Your task to perform on an android device: turn pop-ups off in chrome Image 0: 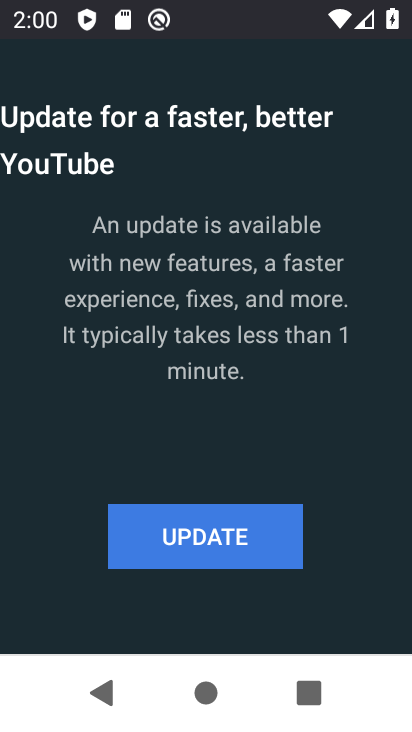
Step 0: press home button
Your task to perform on an android device: turn pop-ups off in chrome Image 1: 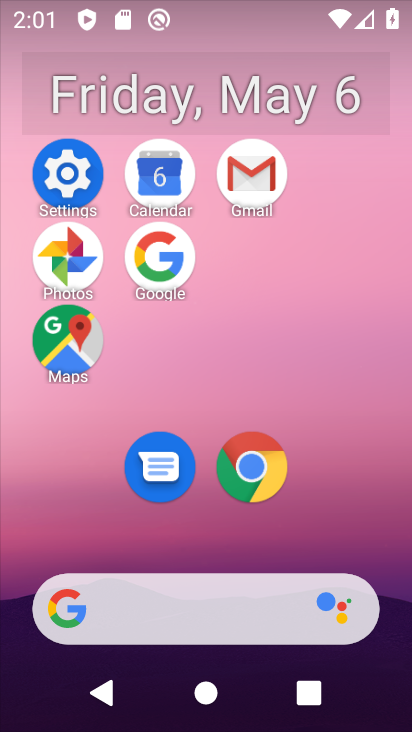
Step 1: click (261, 476)
Your task to perform on an android device: turn pop-ups off in chrome Image 2: 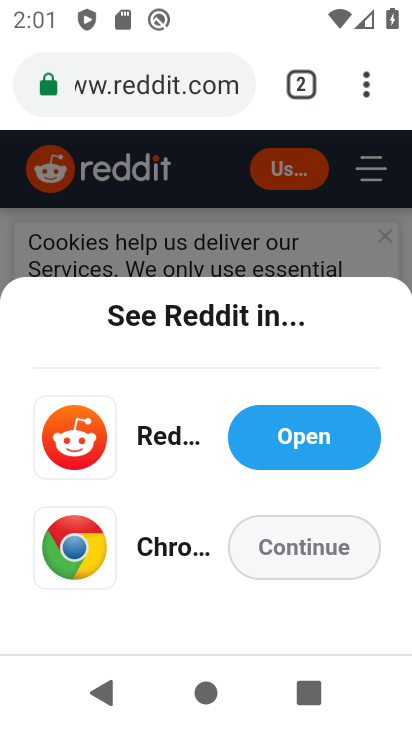
Step 2: click (373, 89)
Your task to perform on an android device: turn pop-ups off in chrome Image 3: 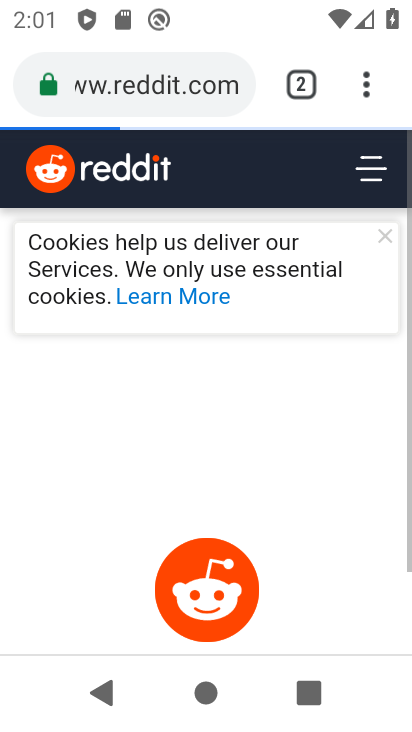
Step 3: click (372, 86)
Your task to perform on an android device: turn pop-ups off in chrome Image 4: 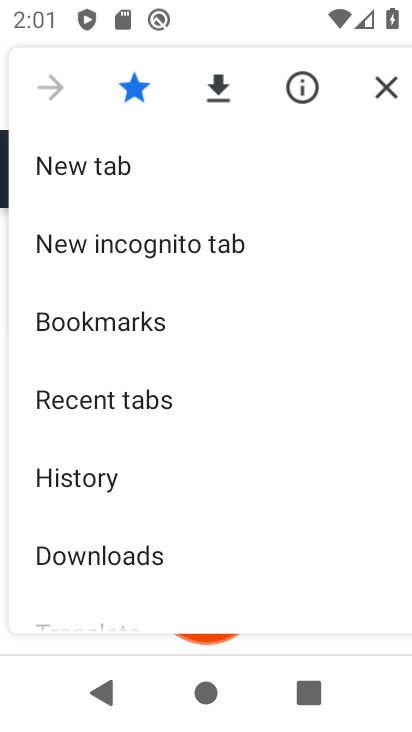
Step 4: drag from (260, 535) to (230, 147)
Your task to perform on an android device: turn pop-ups off in chrome Image 5: 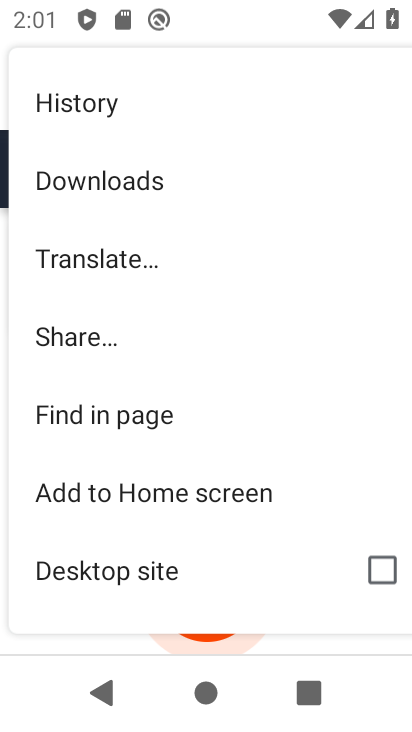
Step 5: drag from (184, 486) to (170, 140)
Your task to perform on an android device: turn pop-ups off in chrome Image 6: 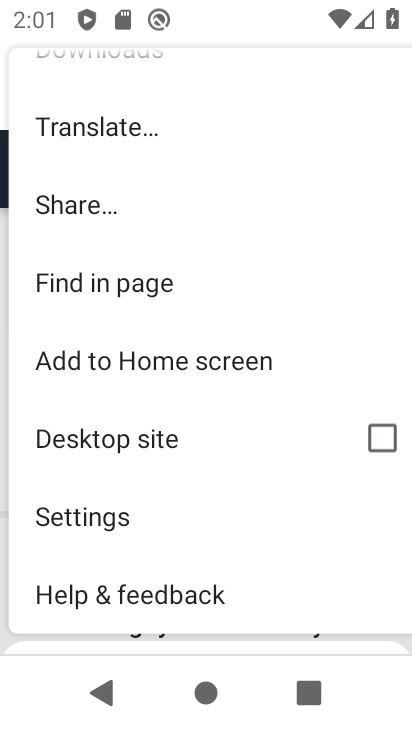
Step 6: click (155, 512)
Your task to perform on an android device: turn pop-ups off in chrome Image 7: 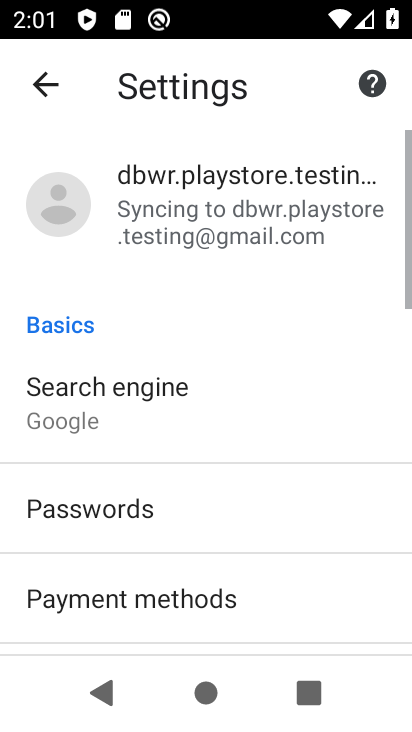
Step 7: drag from (202, 523) to (213, 159)
Your task to perform on an android device: turn pop-ups off in chrome Image 8: 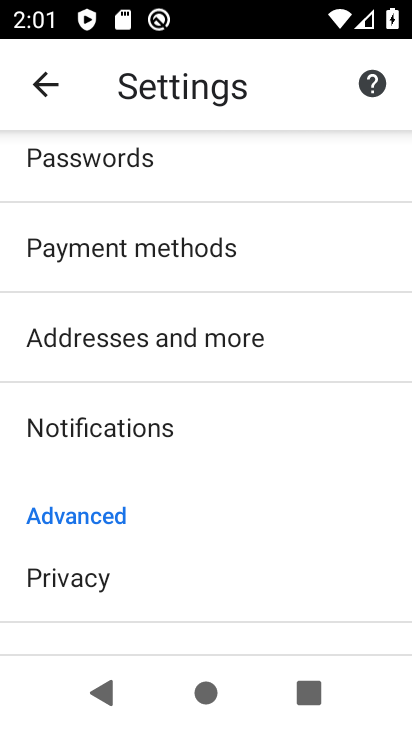
Step 8: drag from (219, 501) to (250, 149)
Your task to perform on an android device: turn pop-ups off in chrome Image 9: 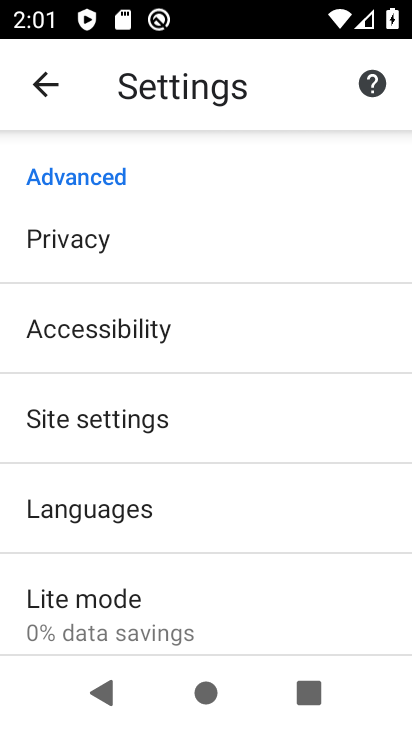
Step 9: click (189, 418)
Your task to perform on an android device: turn pop-ups off in chrome Image 10: 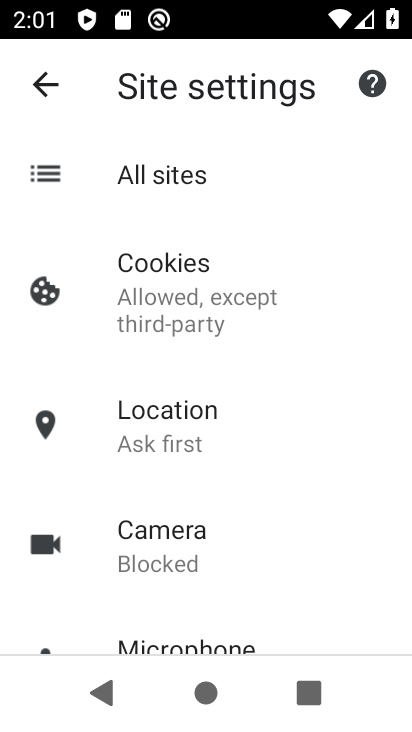
Step 10: drag from (227, 583) to (252, 202)
Your task to perform on an android device: turn pop-ups off in chrome Image 11: 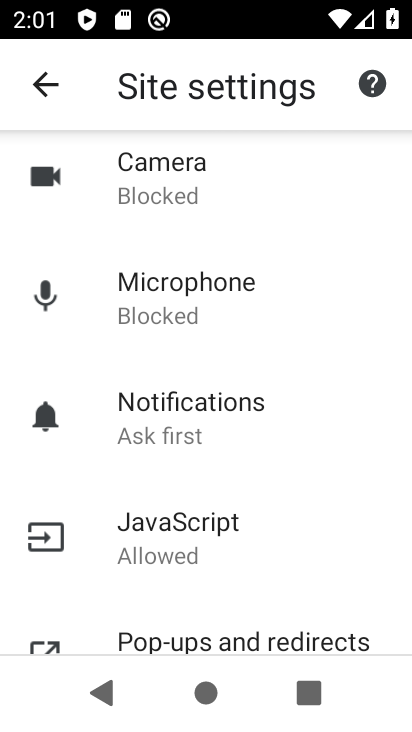
Step 11: drag from (265, 540) to (297, 234)
Your task to perform on an android device: turn pop-ups off in chrome Image 12: 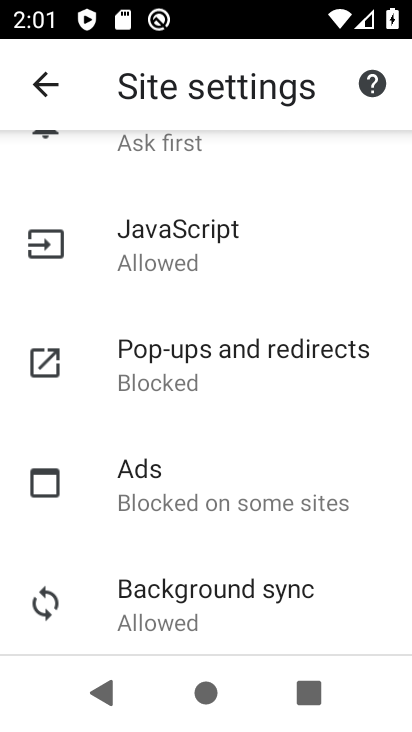
Step 12: click (266, 372)
Your task to perform on an android device: turn pop-ups off in chrome Image 13: 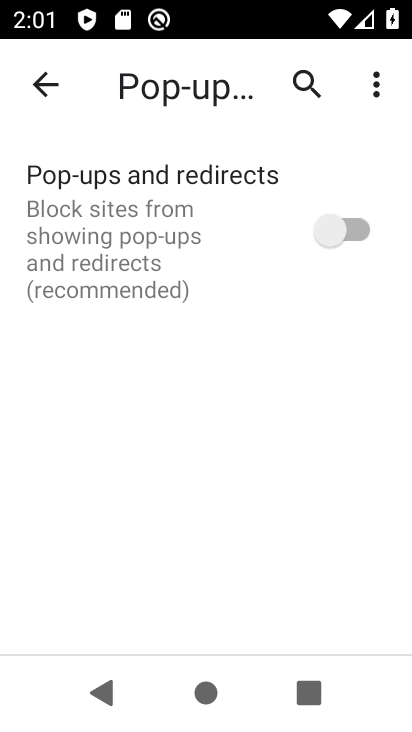
Step 13: task complete